Your task to perform on an android device: Go to location settings Image 0: 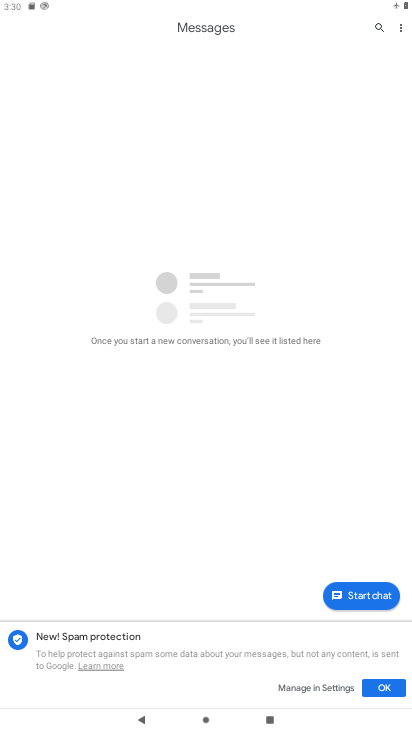
Step 0: press home button
Your task to perform on an android device: Go to location settings Image 1: 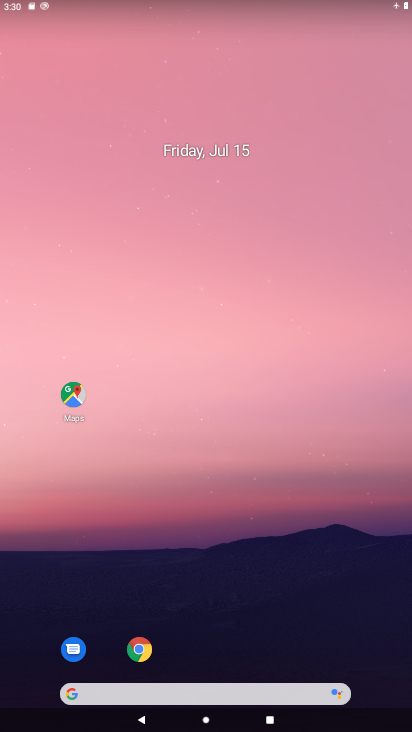
Step 1: drag from (387, 652) to (328, 13)
Your task to perform on an android device: Go to location settings Image 2: 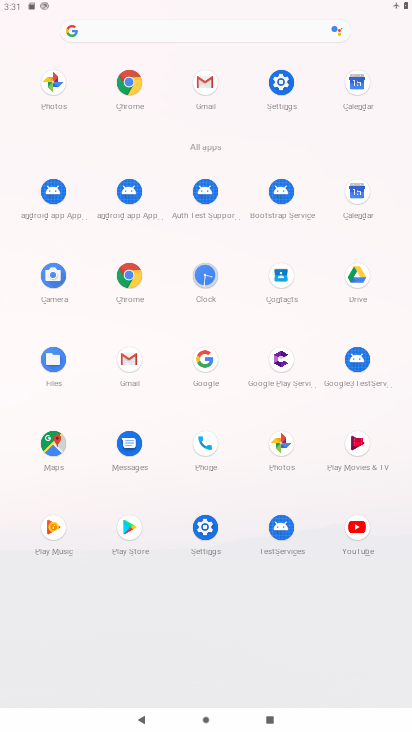
Step 2: click (203, 527)
Your task to perform on an android device: Go to location settings Image 3: 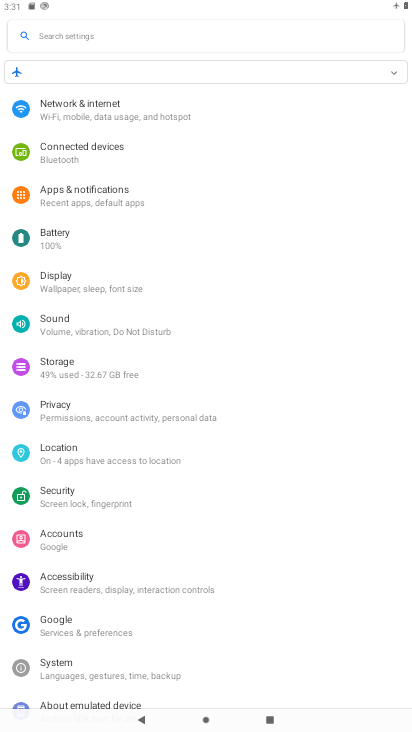
Step 3: click (67, 449)
Your task to perform on an android device: Go to location settings Image 4: 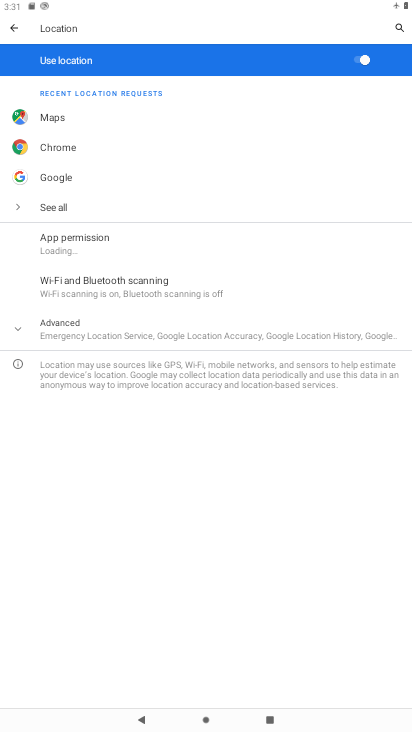
Step 4: click (18, 327)
Your task to perform on an android device: Go to location settings Image 5: 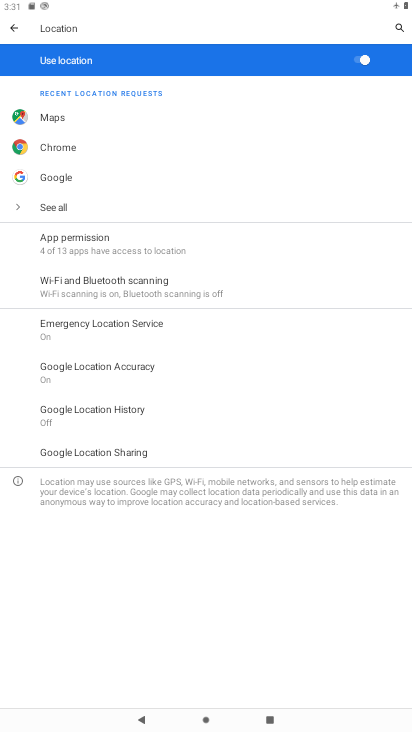
Step 5: task complete